Your task to perform on an android device: change your default location settings in chrome Image 0: 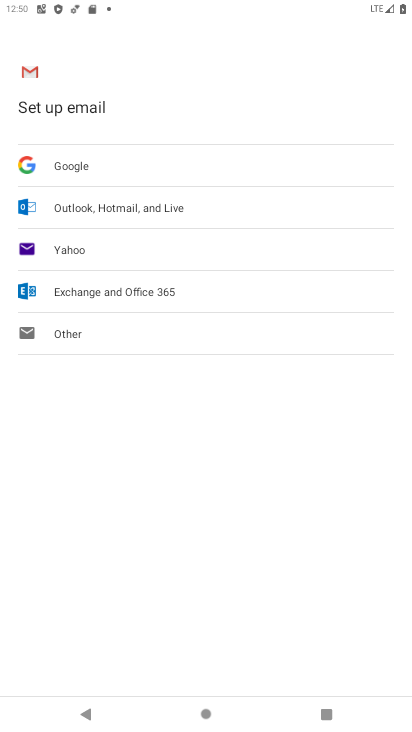
Step 0: press home button
Your task to perform on an android device: change your default location settings in chrome Image 1: 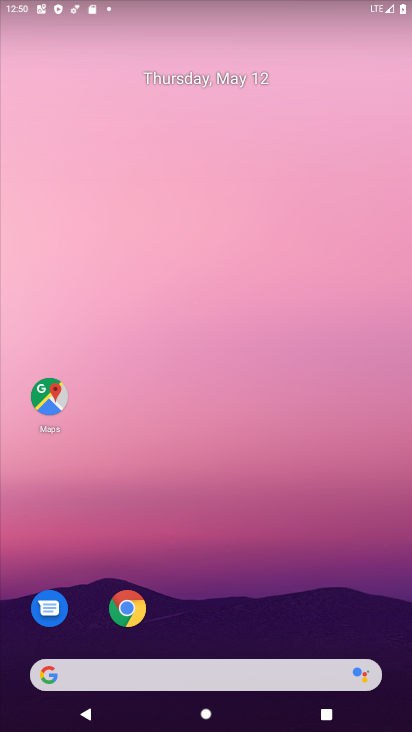
Step 1: click (132, 616)
Your task to perform on an android device: change your default location settings in chrome Image 2: 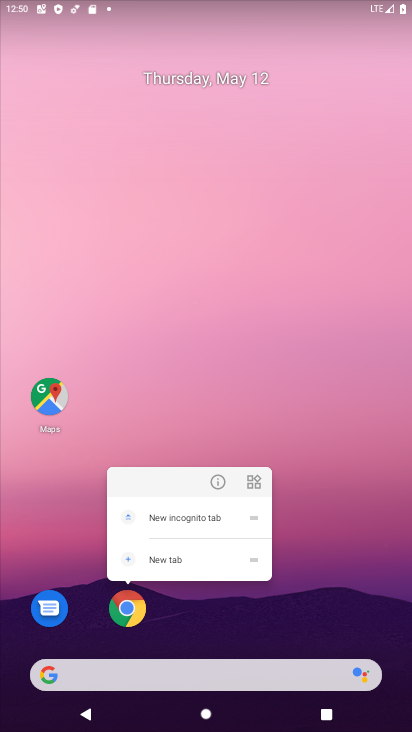
Step 2: click (145, 615)
Your task to perform on an android device: change your default location settings in chrome Image 3: 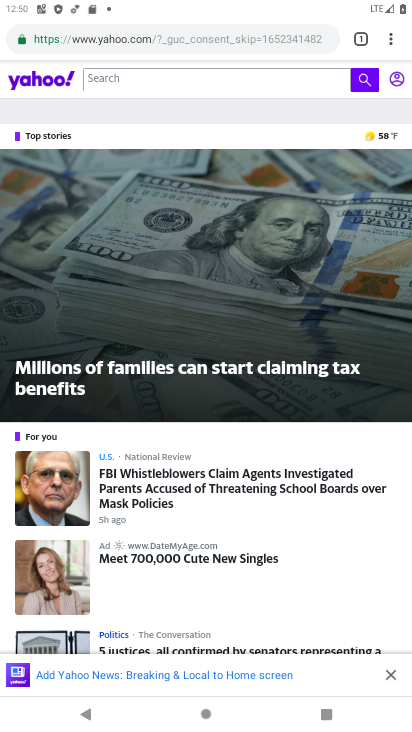
Step 3: click (389, 37)
Your task to perform on an android device: change your default location settings in chrome Image 4: 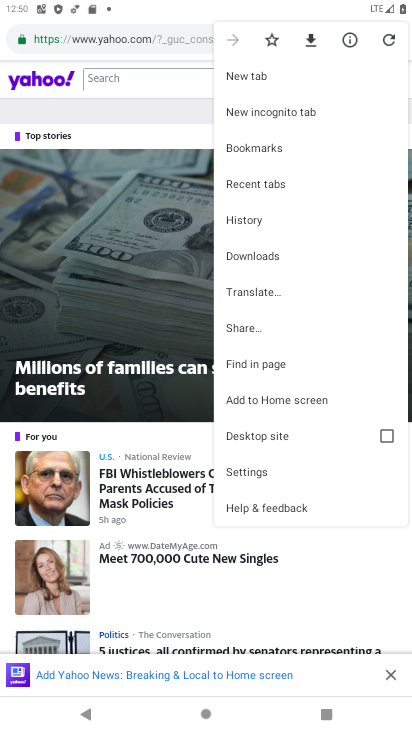
Step 4: click (251, 477)
Your task to perform on an android device: change your default location settings in chrome Image 5: 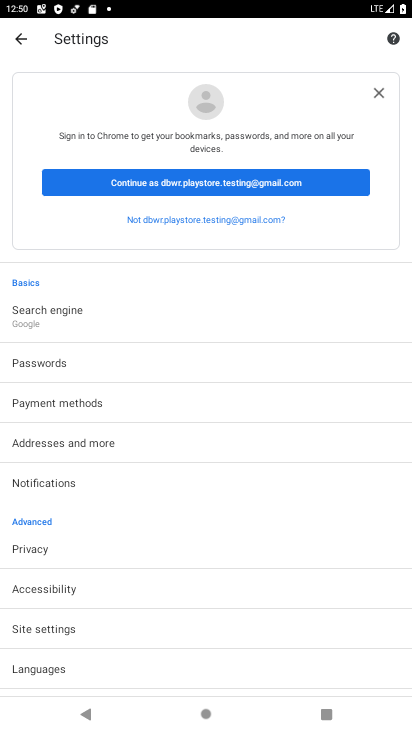
Step 5: click (80, 633)
Your task to perform on an android device: change your default location settings in chrome Image 6: 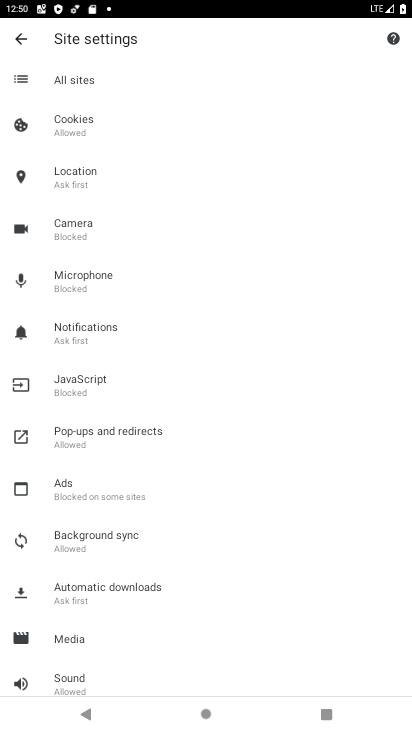
Step 6: click (64, 176)
Your task to perform on an android device: change your default location settings in chrome Image 7: 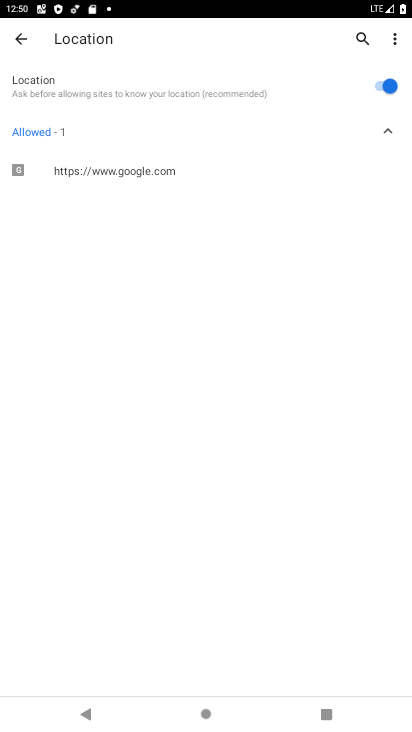
Step 7: click (390, 82)
Your task to perform on an android device: change your default location settings in chrome Image 8: 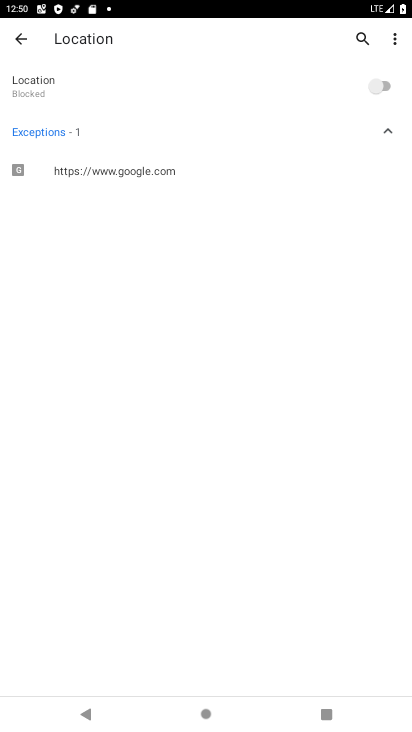
Step 8: task complete